Your task to perform on an android device: Open the calendar app, open the side menu, and click the "Day" option Image 0: 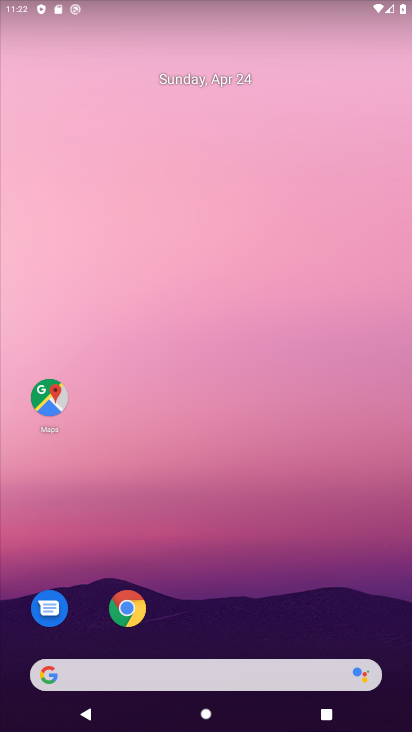
Step 0: click (223, 140)
Your task to perform on an android device: Open the calendar app, open the side menu, and click the "Day" option Image 1: 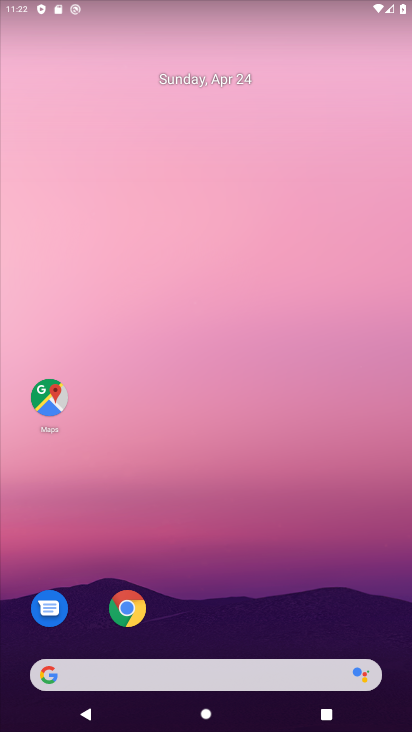
Step 1: drag from (233, 645) to (233, 49)
Your task to perform on an android device: Open the calendar app, open the side menu, and click the "Day" option Image 2: 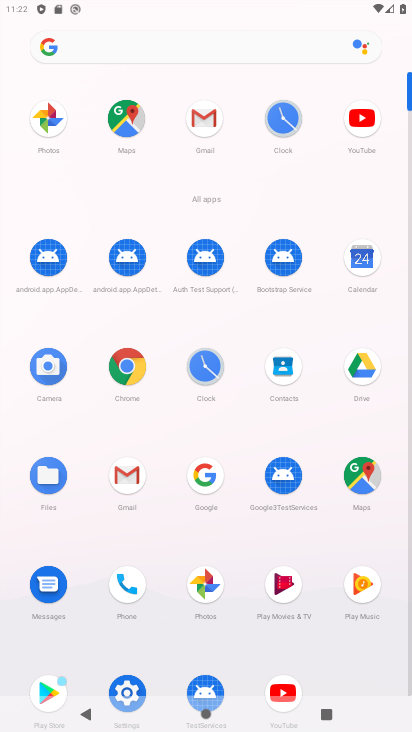
Step 2: click (357, 249)
Your task to perform on an android device: Open the calendar app, open the side menu, and click the "Day" option Image 3: 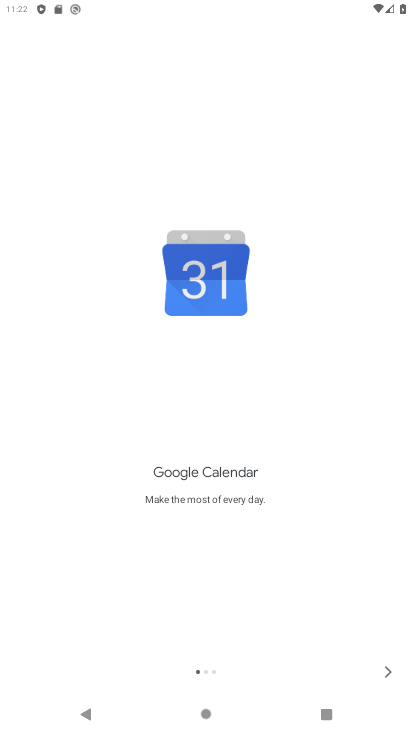
Step 3: click (388, 670)
Your task to perform on an android device: Open the calendar app, open the side menu, and click the "Day" option Image 4: 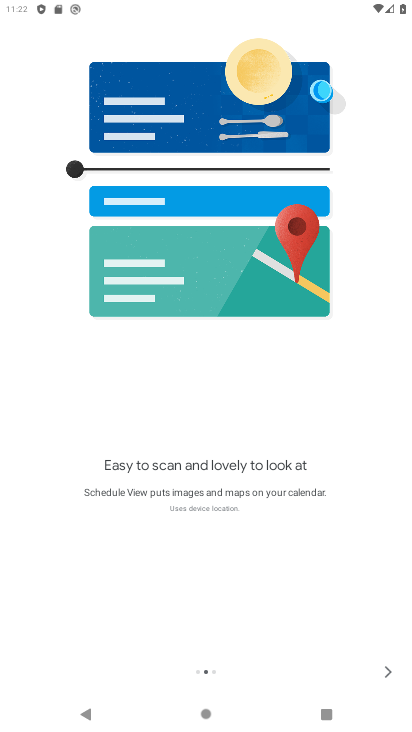
Step 4: click (388, 670)
Your task to perform on an android device: Open the calendar app, open the side menu, and click the "Day" option Image 5: 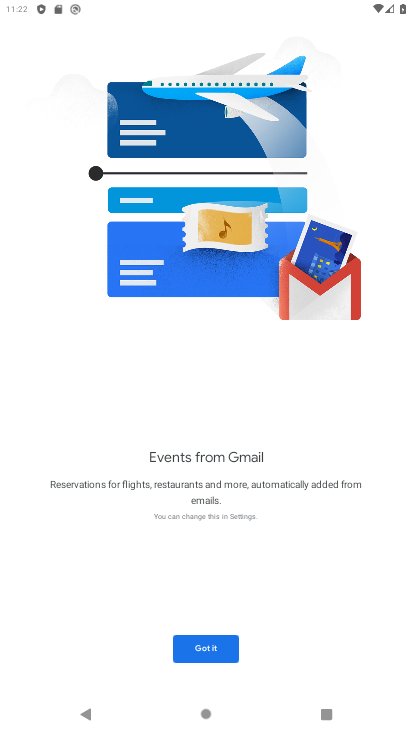
Step 5: click (214, 653)
Your task to perform on an android device: Open the calendar app, open the side menu, and click the "Day" option Image 6: 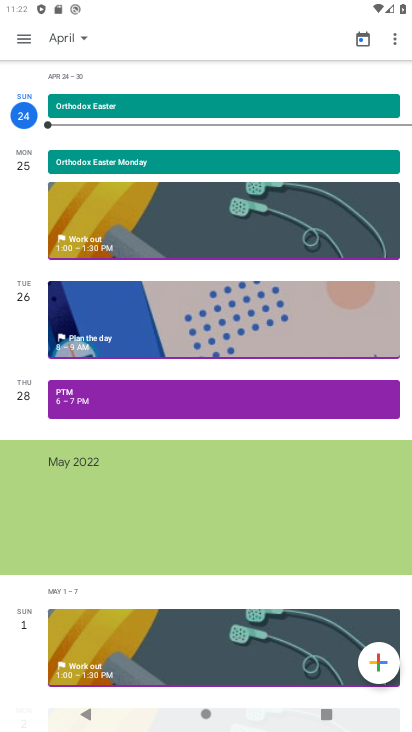
Step 6: click (21, 38)
Your task to perform on an android device: Open the calendar app, open the side menu, and click the "Day" option Image 7: 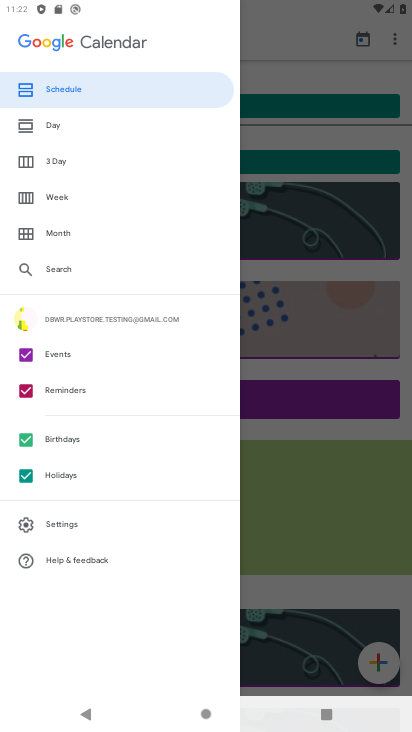
Step 7: click (53, 123)
Your task to perform on an android device: Open the calendar app, open the side menu, and click the "Day" option Image 8: 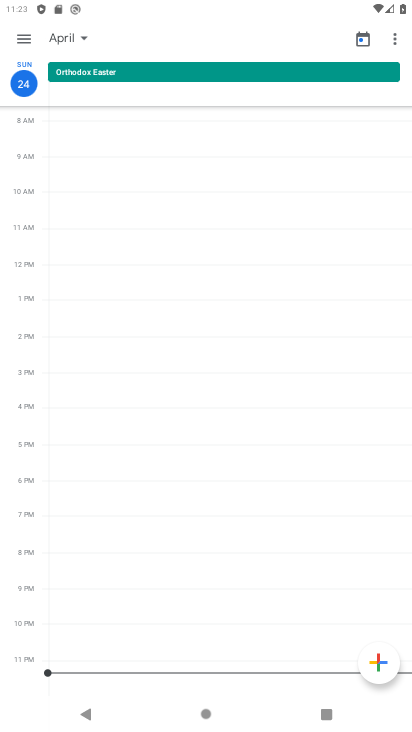
Step 8: task complete